Your task to perform on an android device: Turn on the flashlight Image 0: 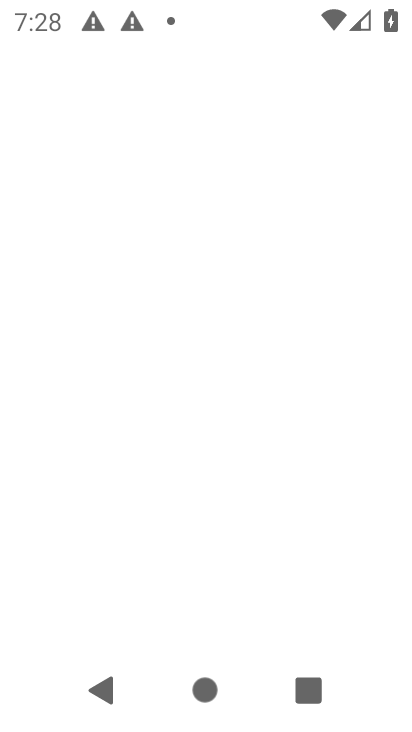
Step 0: drag from (251, 2) to (263, 402)
Your task to perform on an android device: Turn on the flashlight Image 1: 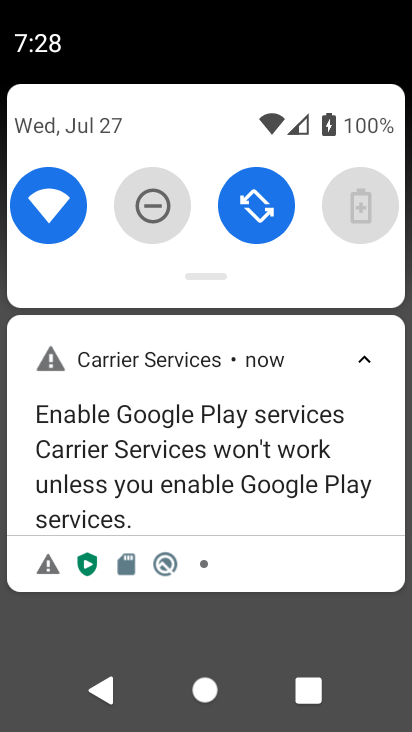
Step 1: drag from (211, 214) to (233, 505)
Your task to perform on an android device: Turn on the flashlight Image 2: 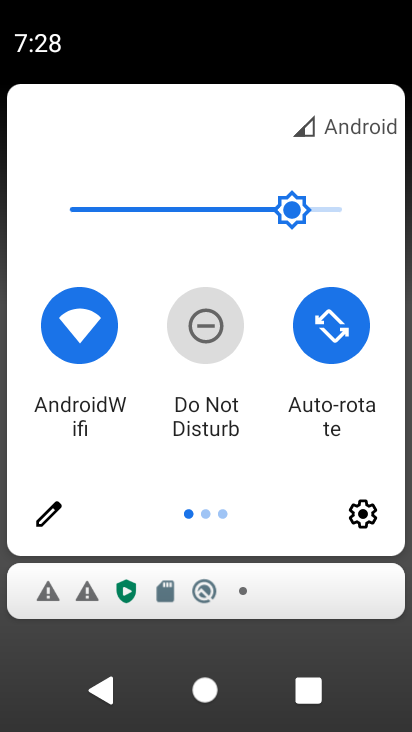
Step 2: click (53, 511)
Your task to perform on an android device: Turn on the flashlight Image 3: 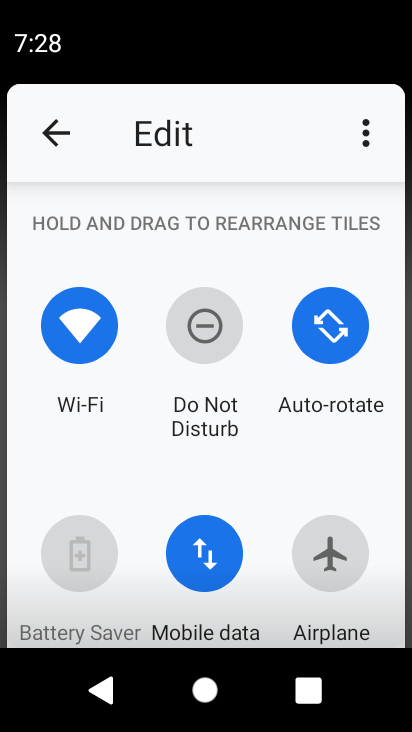
Step 3: task complete